Your task to perform on an android device: What's on the menu at IHOP? Image 0: 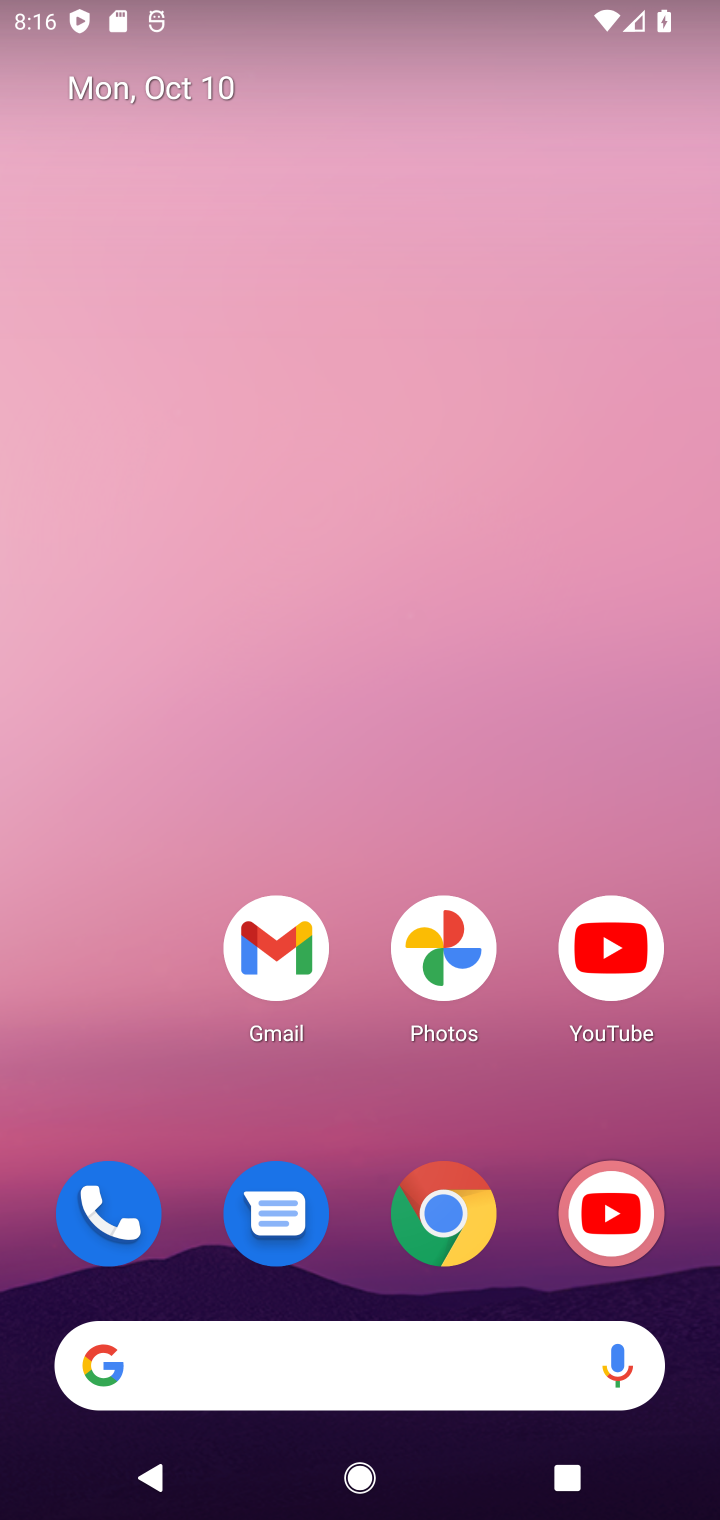
Step 0: click (316, 1341)
Your task to perform on an android device: What's on the menu at IHOP? Image 1: 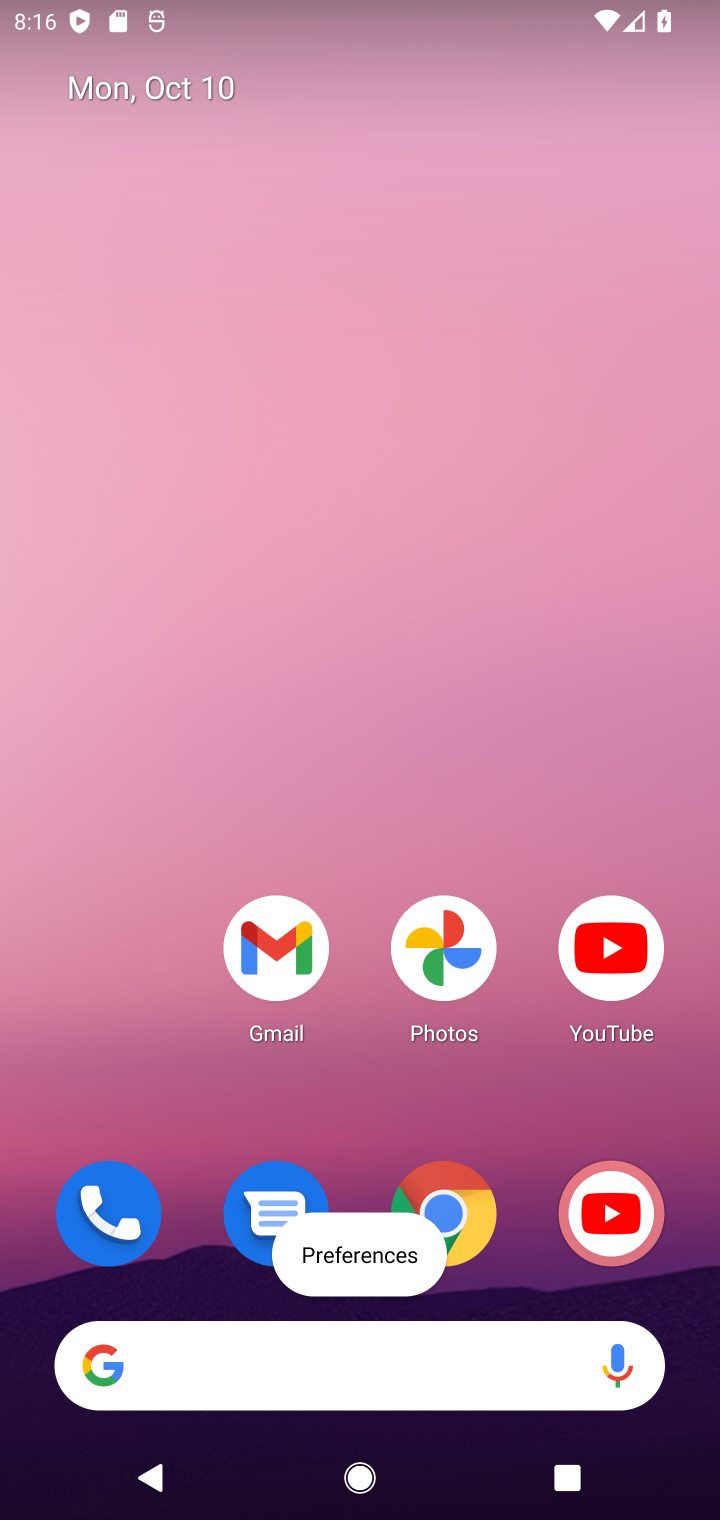
Step 1: click (316, 1347)
Your task to perform on an android device: What's on the menu at IHOP? Image 2: 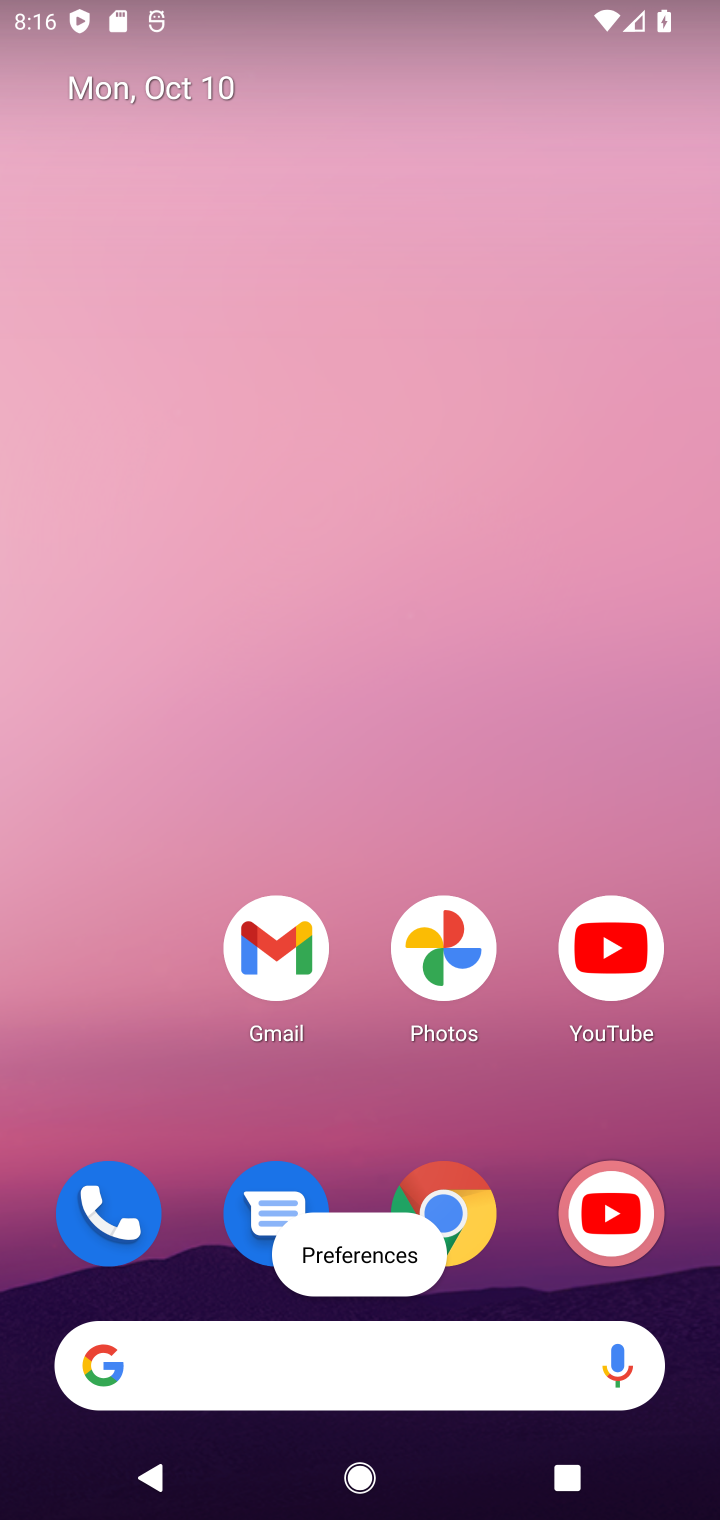
Step 2: click (268, 1354)
Your task to perform on an android device: What's on the menu at IHOP? Image 3: 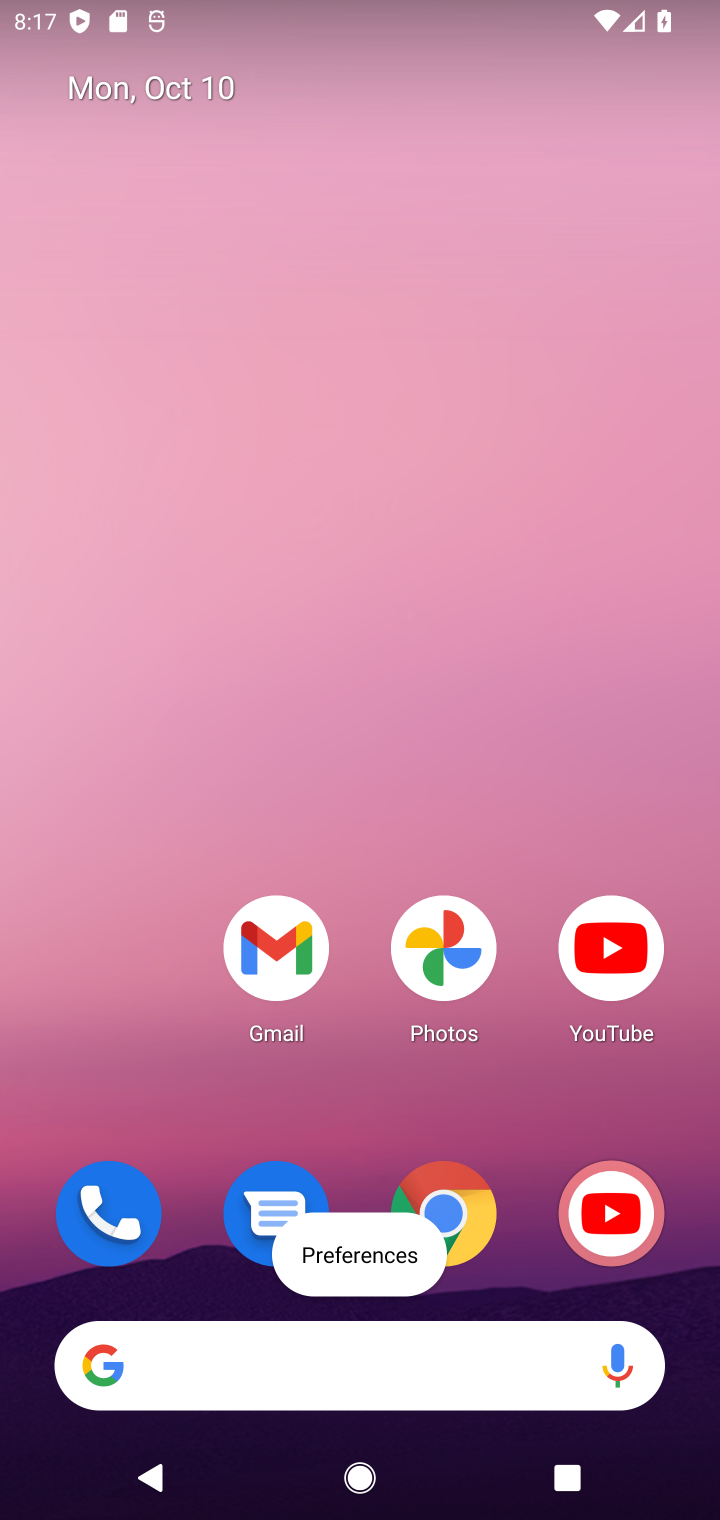
Step 3: click (227, 1364)
Your task to perform on an android device: What's on the menu at IHOP? Image 4: 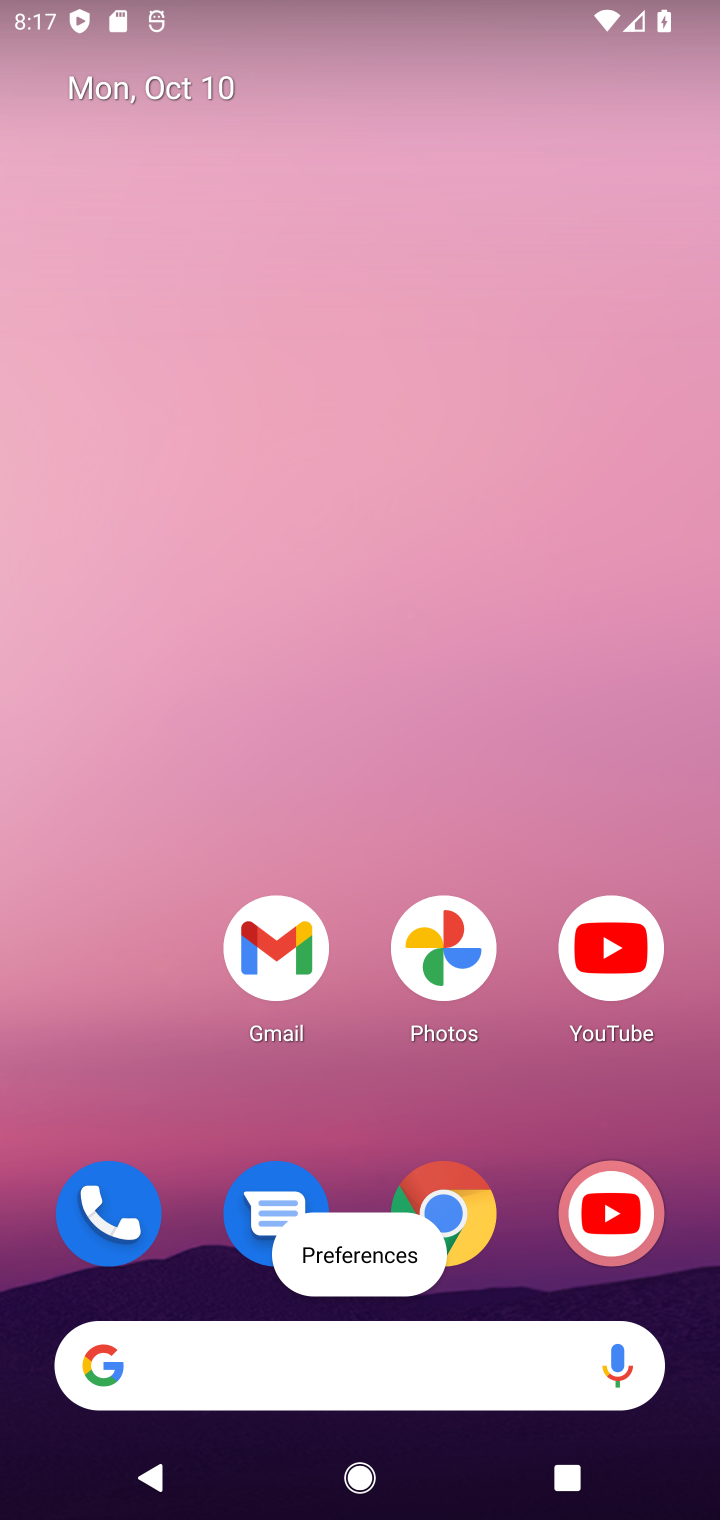
Step 4: click (231, 1369)
Your task to perform on an android device: What's on the menu at IHOP? Image 5: 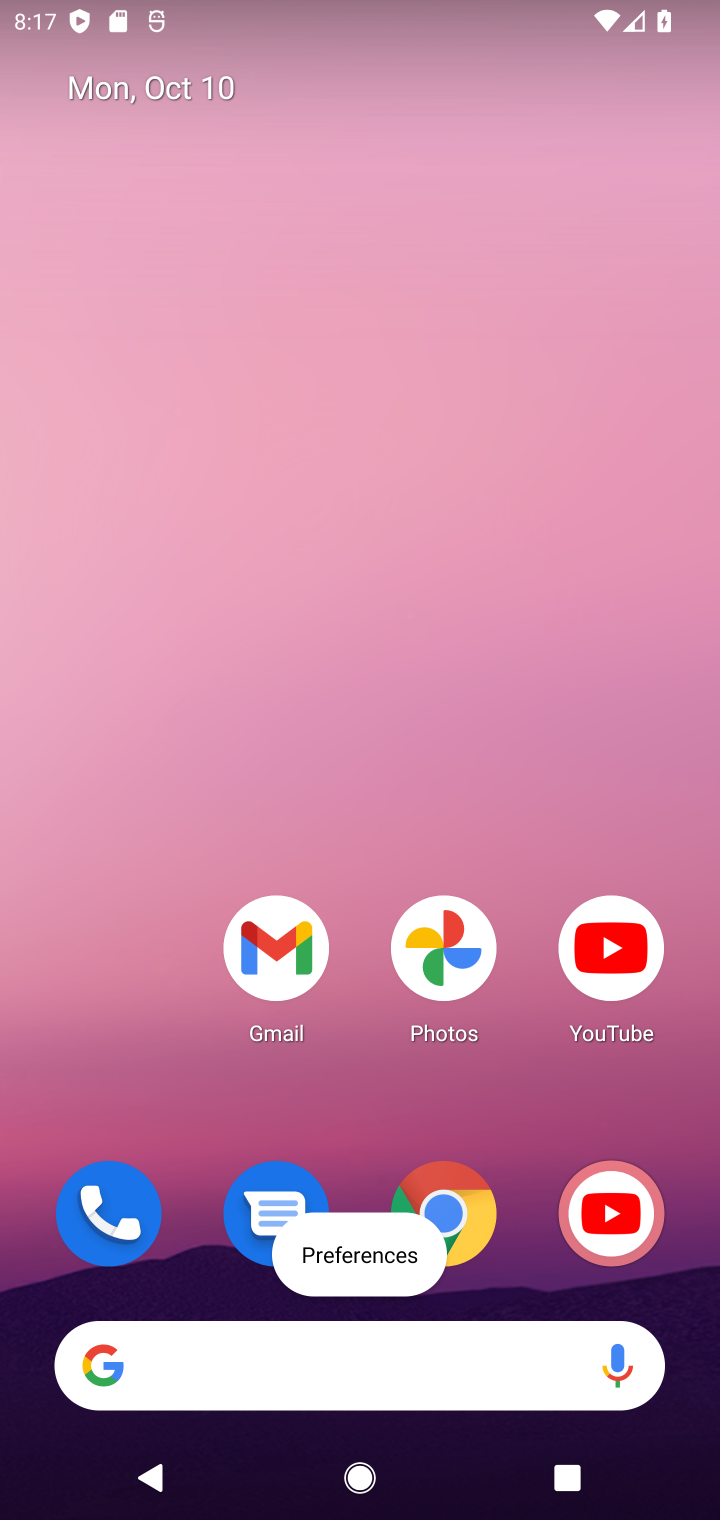
Step 5: click (282, 1378)
Your task to perform on an android device: What's on the menu at IHOP? Image 6: 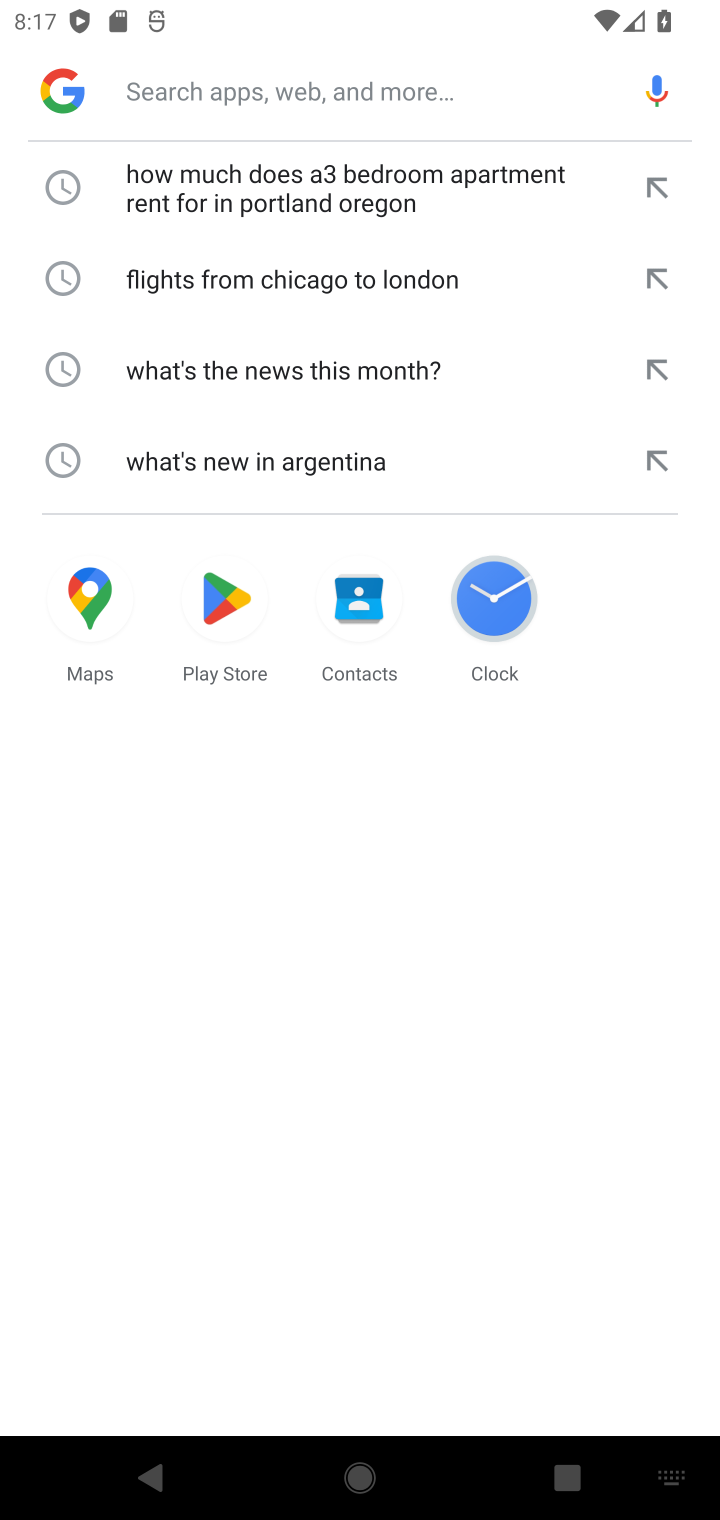
Step 6: click (200, 73)
Your task to perform on an android device: What's on the menu at IHOP? Image 7: 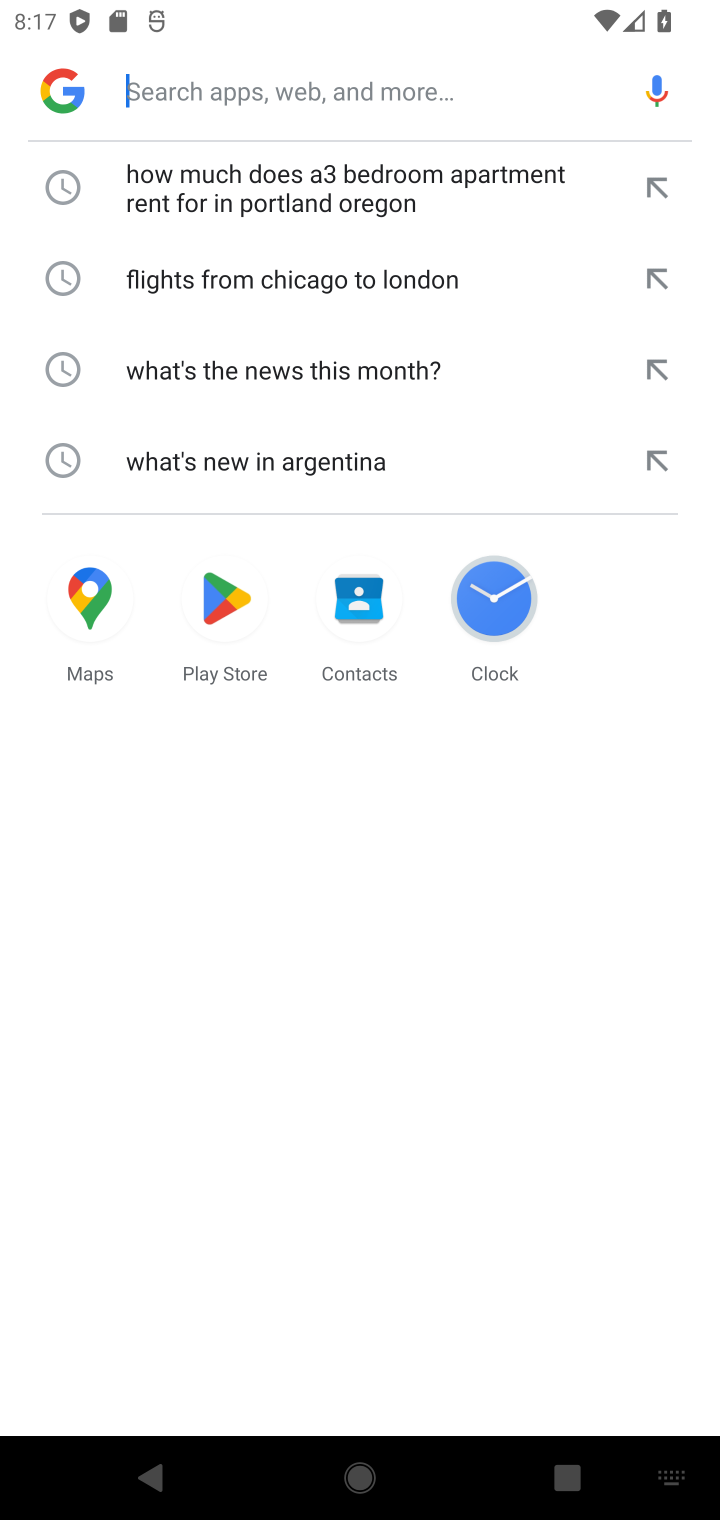
Step 7: type "What's on the menu at IHOP?"
Your task to perform on an android device: What's on the menu at IHOP? Image 8: 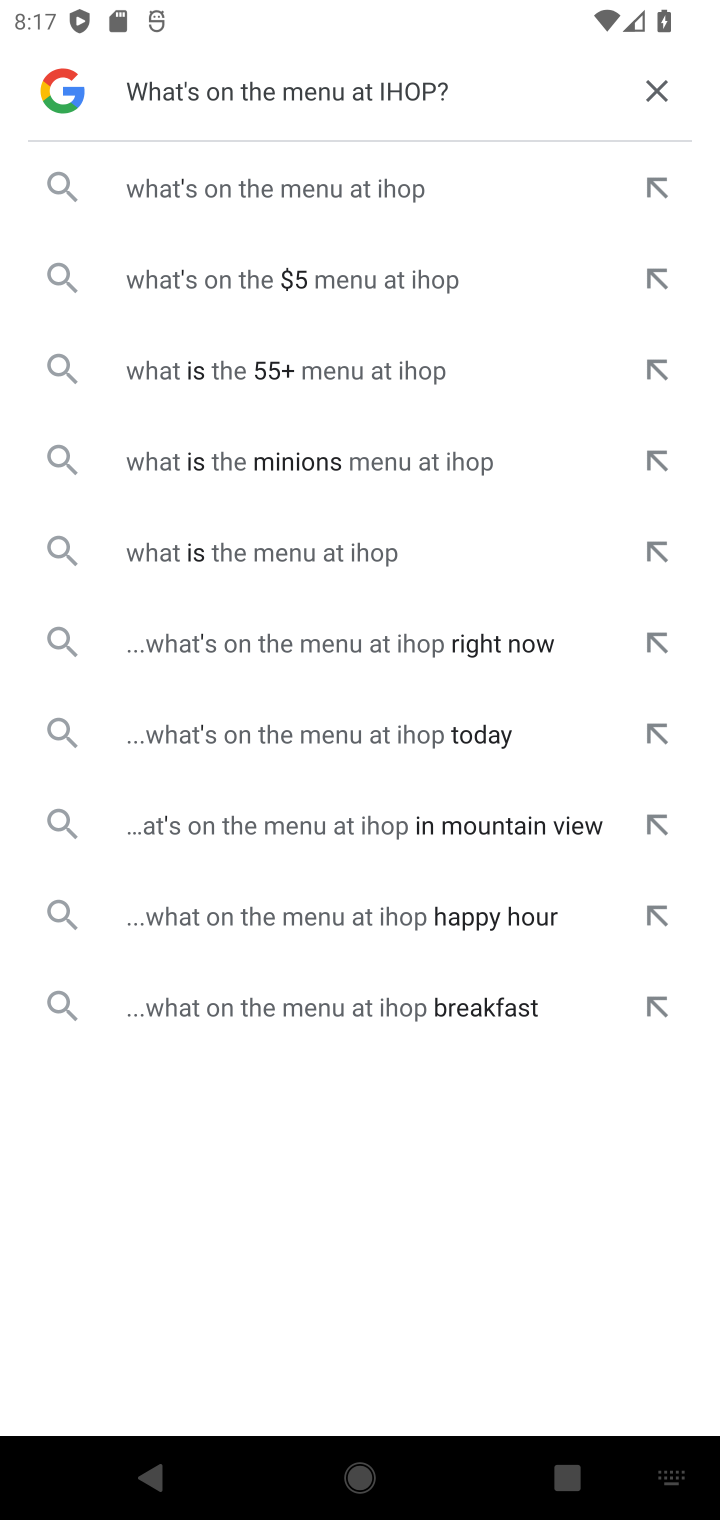
Step 8: click (302, 197)
Your task to perform on an android device: What's on the menu at IHOP? Image 9: 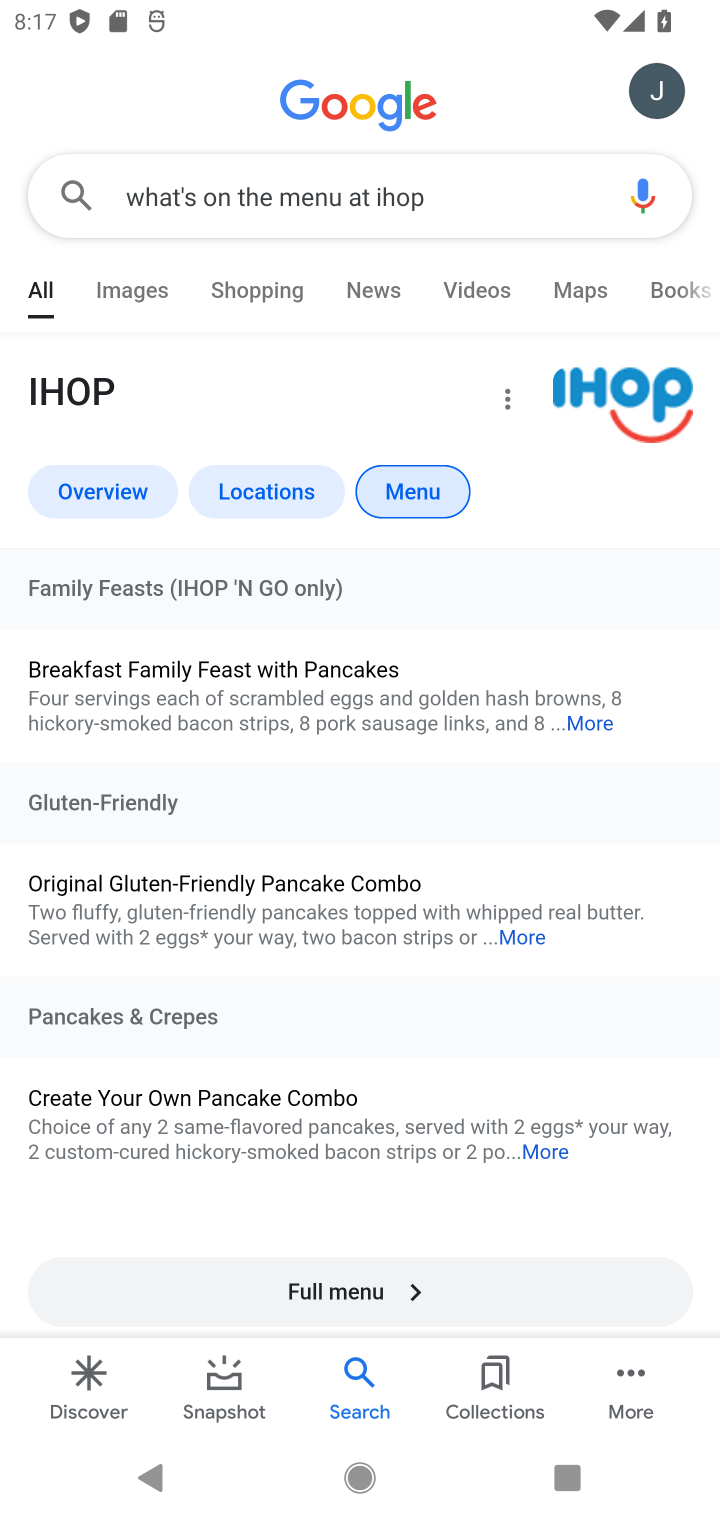
Step 9: task complete